Your task to perform on an android device: How much does the TCL TV cost? Image 0: 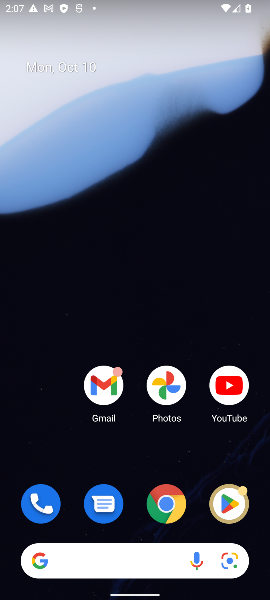
Step 0: drag from (160, 511) to (111, 124)
Your task to perform on an android device: How much does the TCL TV cost? Image 1: 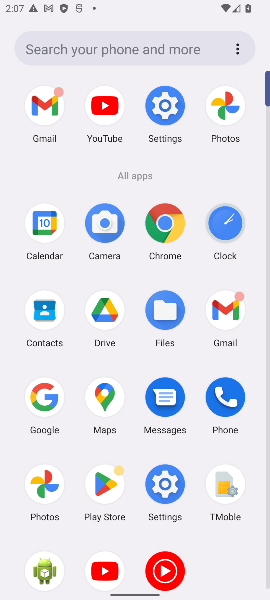
Step 1: click (171, 229)
Your task to perform on an android device: How much does the TCL TV cost? Image 2: 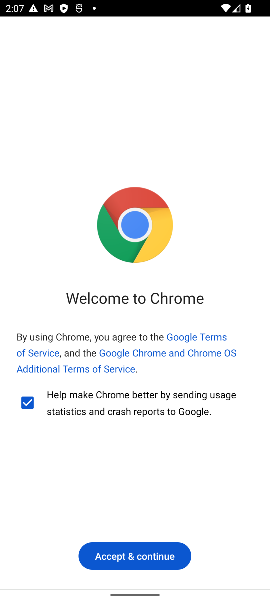
Step 2: click (151, 546)
Your task to perform on an android device: How much does the TCL TV cost? Image 3: 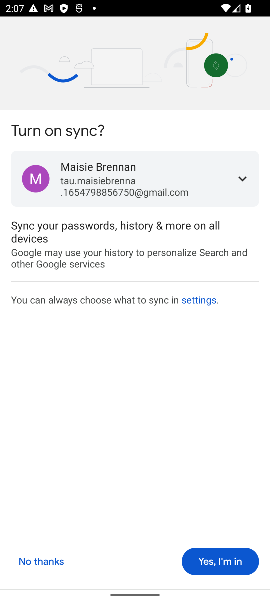
Step 3: click (234, 565)
Your task to perform on an android device: How much does the TCL TV cost? Image 4: 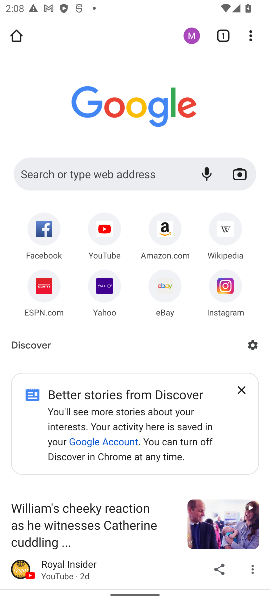
Step 4: click (51, 169)
Your task to perform on an android device: How much does the TCL TV cost? Image 5: 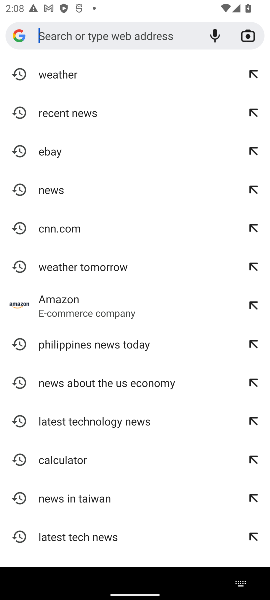
Step 5: type "How much does the TCL TV cost?"
Your task to perform on an android device: How much does the TCL TV cost? Image 6: 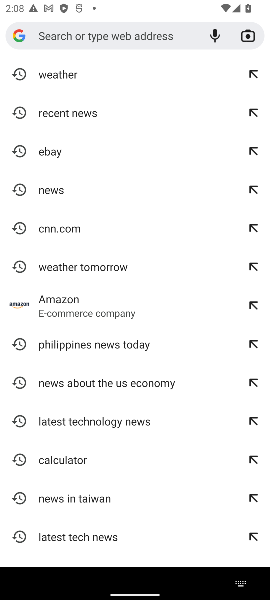
Step 6: click (108, 33)
Your task to perform on an android device: How much does the TCL TV cost? Image 7: 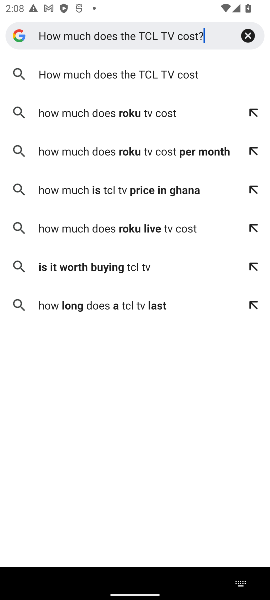
Step 7: press enter
Your task to perform on an android device: How much does the TCL TV cost? Image 8: 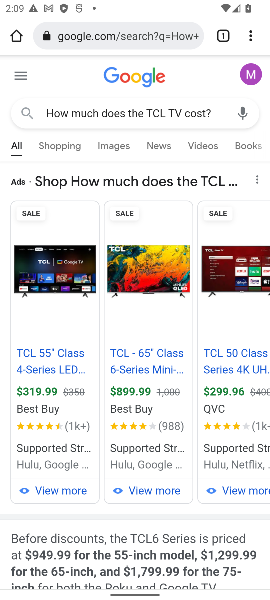
Step 8: task complete